Your task to perform on an android device: toggle data saver in the chrome app Image 0: 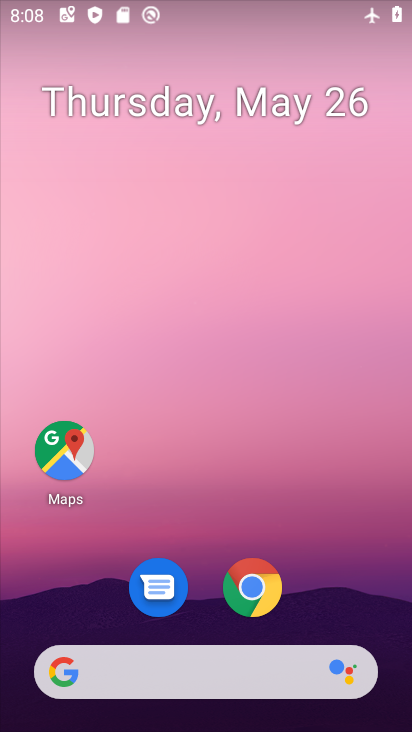
Step 0: click (245, 584)
Your task to perform on an android device: toggle data saver in the chrome app Image 1: 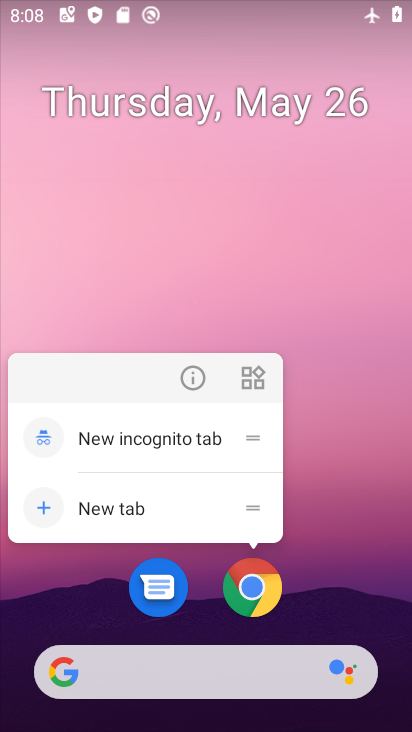
Step 1: click (253, 568)
Your task to perform on an android device: toggle data saver in the chrome app Image 2: 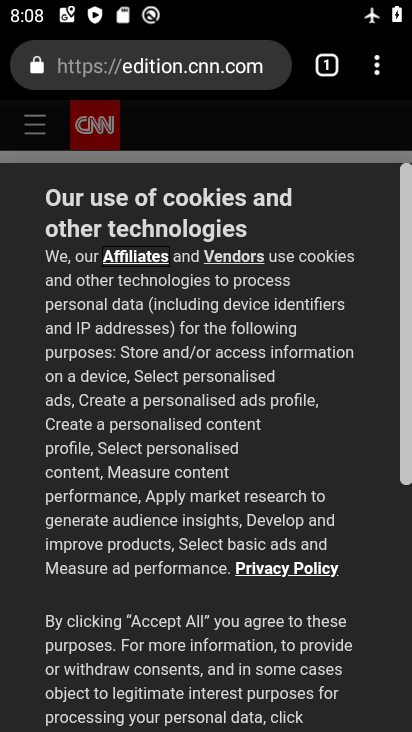
Step 2: drag from (365, 74) to (183, 625)
Your task to perform on an android device: toggle data saver in the chrome app Image 3: 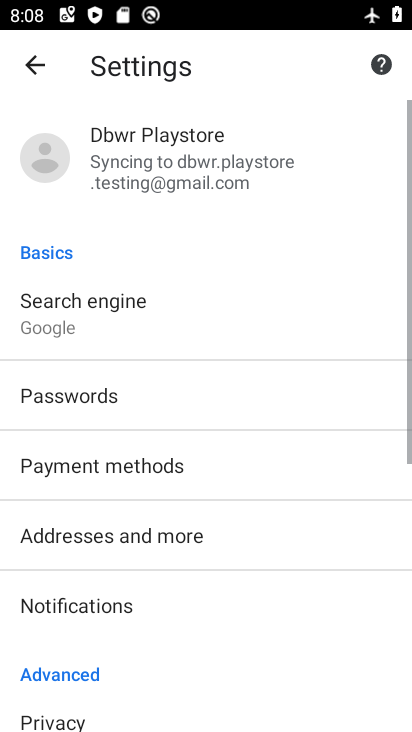
Step 3: drag from (188, 637) to (281, 264)
Your task to perform on an android device: toggle data saver in the chrome app Image 4: 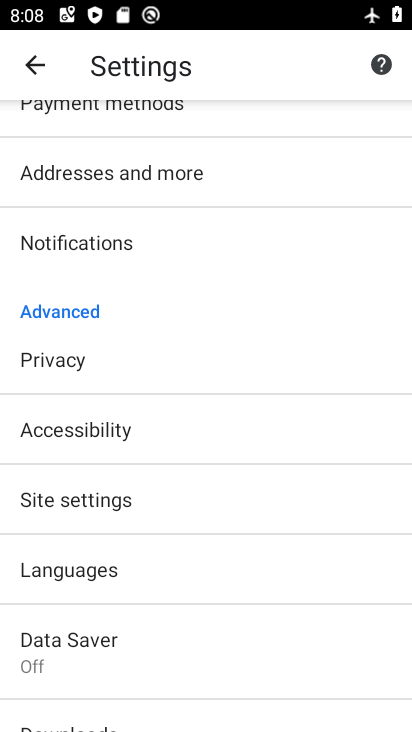
Step 4: click (160, 650)
Your task to perform on an android device: toggle data saver in the chrome app Image 5: 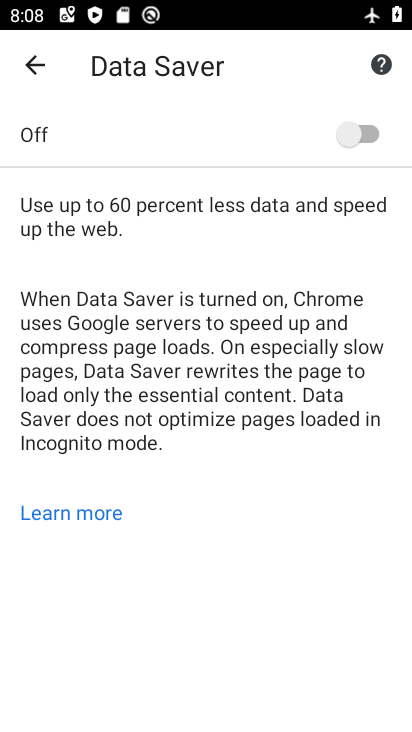
Step 5: click (378, 129)
Your task to perform on an android device: toggle data saver in the chrome app Image 6: 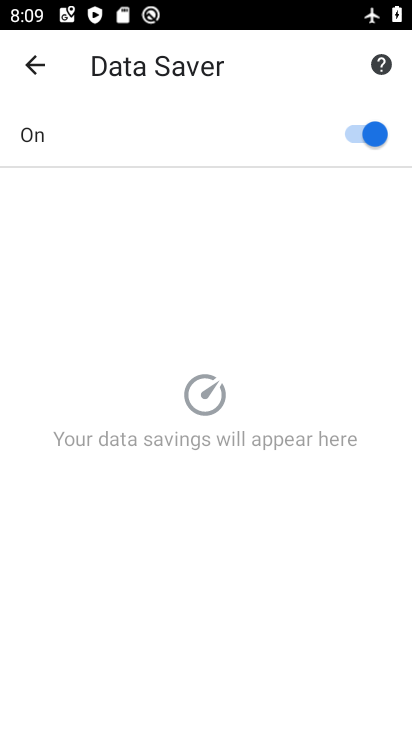
Step 6: task complete